Your task to perform on an android device: Go to Wikipedia Image 0: 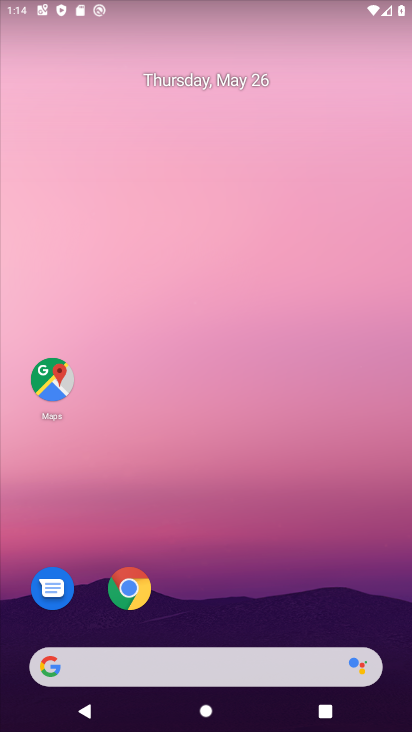
Step 0: drag from (401, 718) to (344, 256)
Your task to perform on an android device: Go to Wikipedia Image 1: 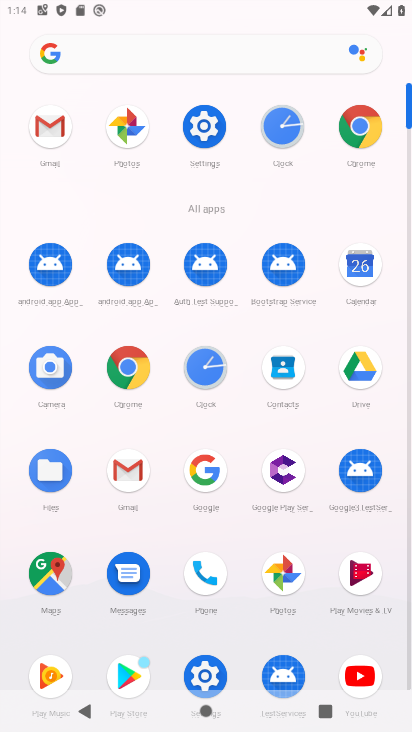
Step 1: click (120, 370)
Your task to perform on an android device: Go to Wikipedia Image 2: 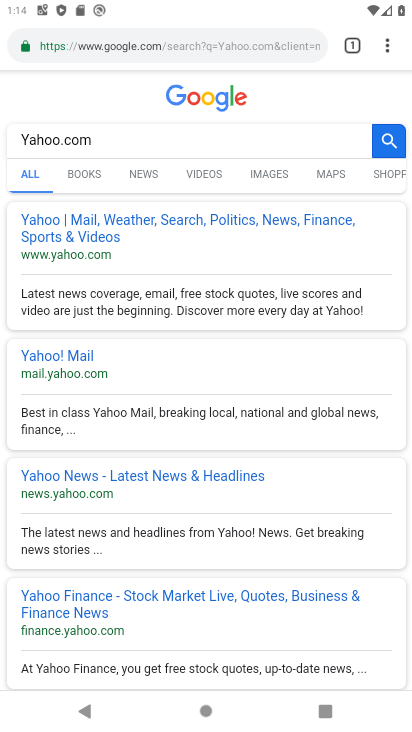
Step 2: click (317, 42)
Your task to perform on an android device: Go to Wikipedia Image 3: 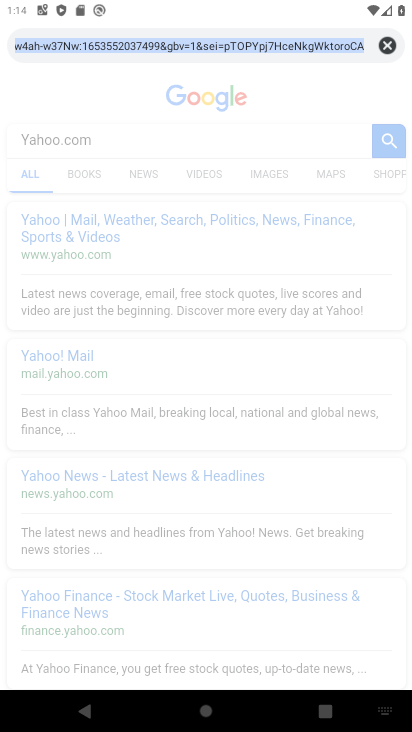
Step 3: click (384, 47)
Your task to perform on an android device: Go to Wikipedia Image 4: 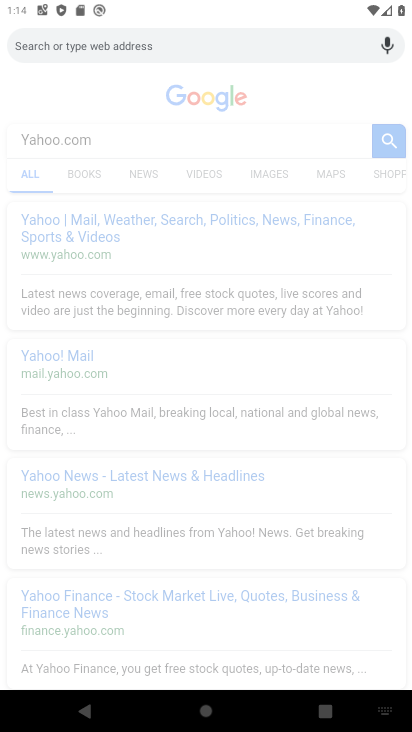
Step 4: type "Wikipedia"
Your task to perform on an android device: Go to Wikipedia Image 5: 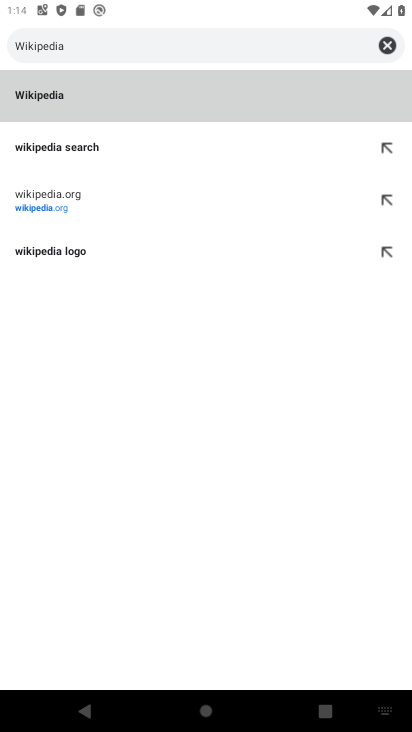
Step 5: click (24, 103)
Your task to perform on an android device: Go to Wikipedia Image 6: 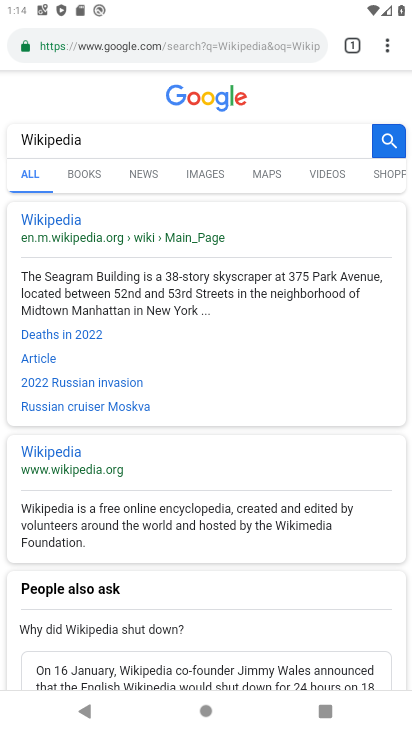
Step 6: task complete